Your task to perform on an android device: toggle data saver in the chrome app Image 0: 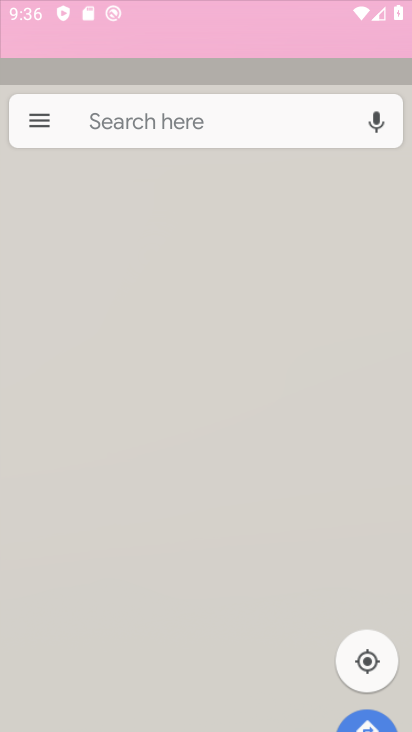
Step 0: click (245, 43)
Your task to perform on an android device: toggle data saver in the chrome app Image 1: 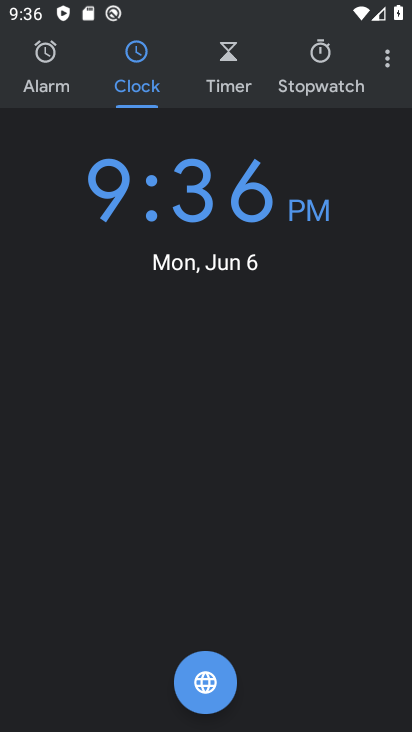
Step 1: press back button
Your task to perform on an android device: toggle data saver in the chrome app Image 2: 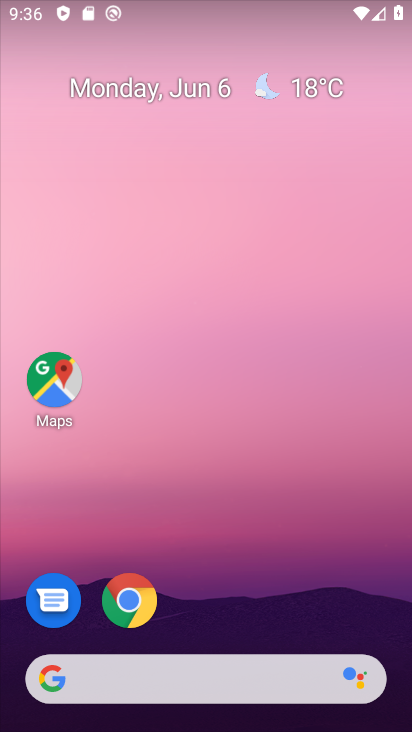
Step 2: drag from (207, 582) to (203, 7)
Your task to perform on an android device: toggle data saver in the chrome app Image 3: 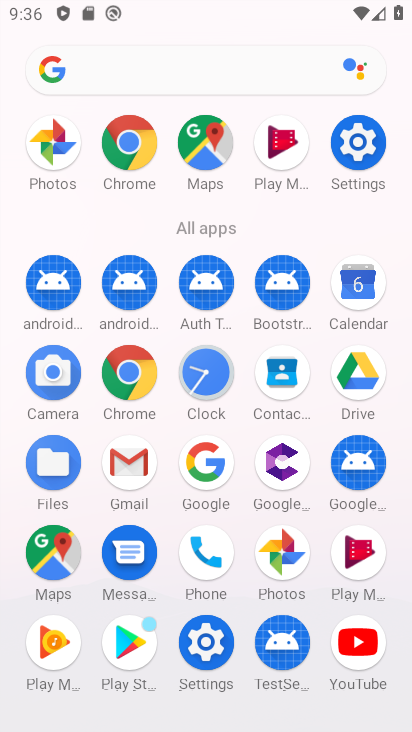
Step 3: click (127, 141)
Your task to perform on an android device: toggle data saver in the chrome app Image 4: 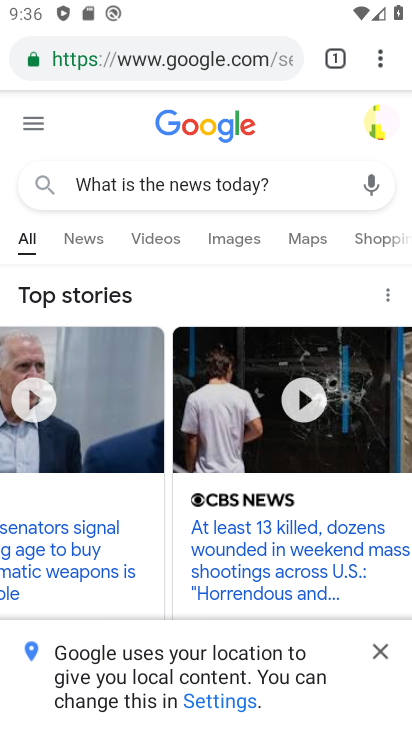
Step 4: drag from (379, 57) to (182, 652)
Your task to perform on an android device: toggle data saver in the chrome app Image 5: 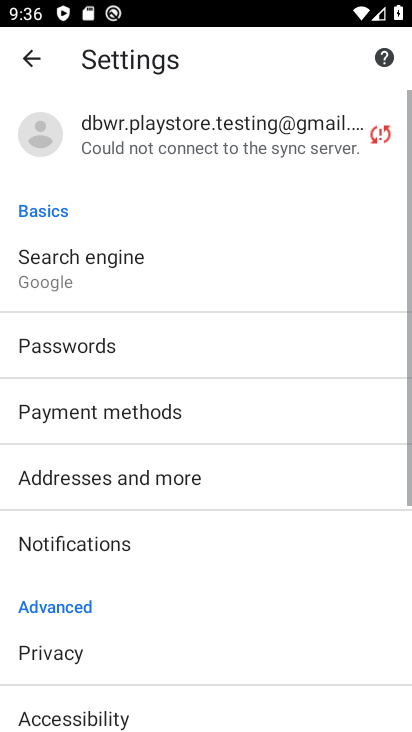
Step 5: drag from (193, 621) to (280, 181)
Your task to perform on an android device: toggle data saver in the chrome app Image 6: 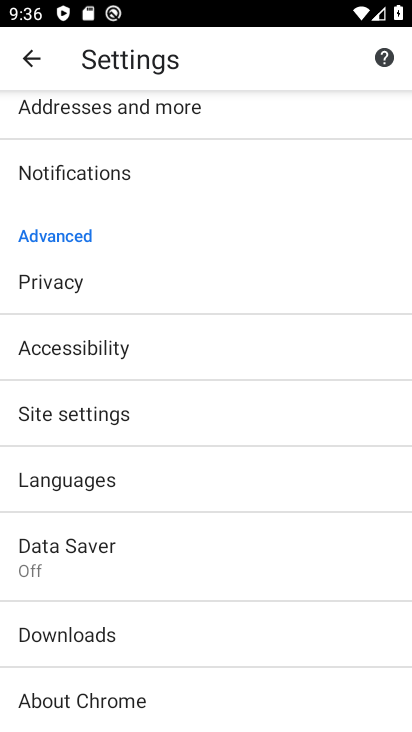
Step 6: drag from (255, 600) to (272, 205)
Your task to perform on an android device: toggle data saver in the chrome app Image 7: 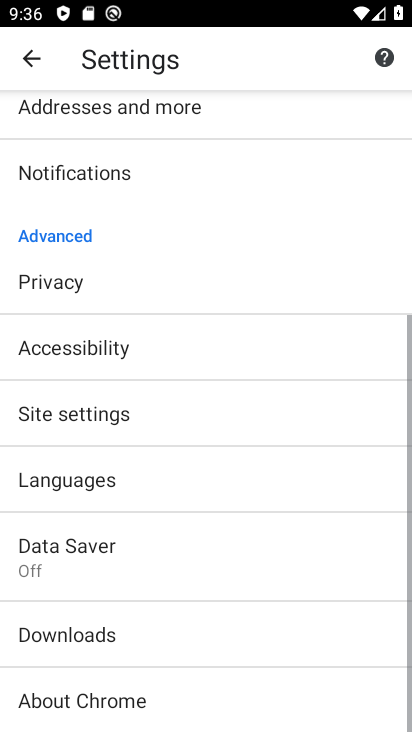
Step 7: click (126, 547)
Your task to perform on an android device: toggle data saver in the chrome app Image 8: 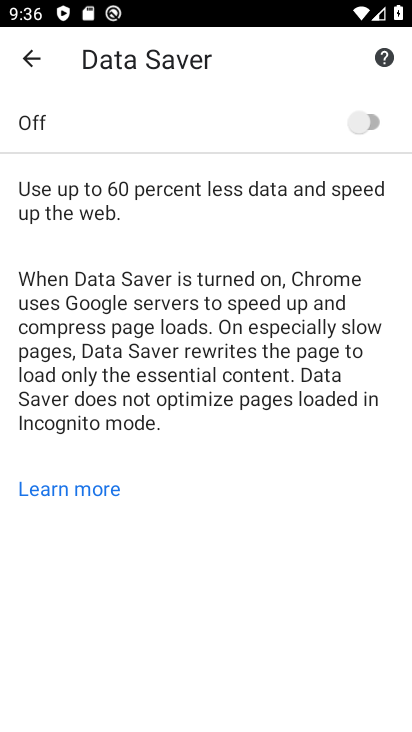
Step 8: click (353, 118)
Your task to perform on an android device: toggle data saver in the chrome app Image 9: 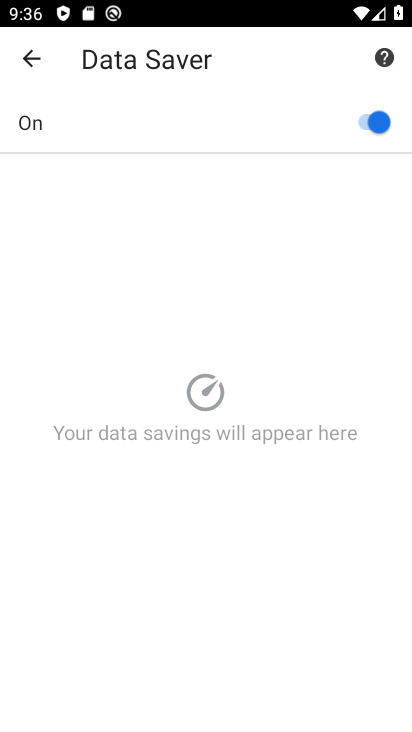
Step 9: task complete